Your task to perform on an android device: open app "Spotify: Music and Podcasts" (install if not already installed) Image 0: 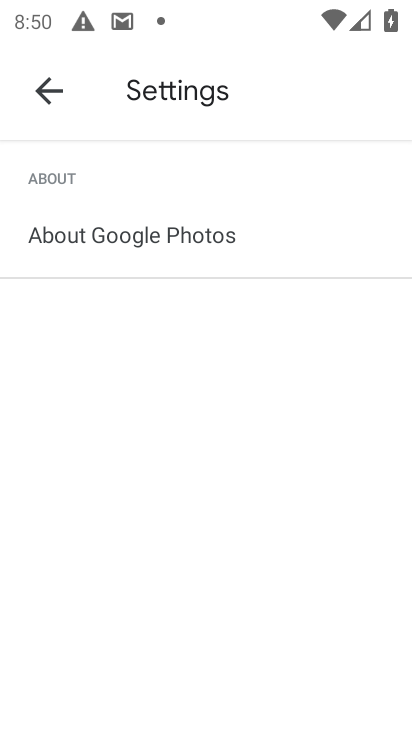
Step 0: press home button
Your task to perform on an android device: open app "Spotify: Music and Podcasts" (install if not already installed) Image 1: 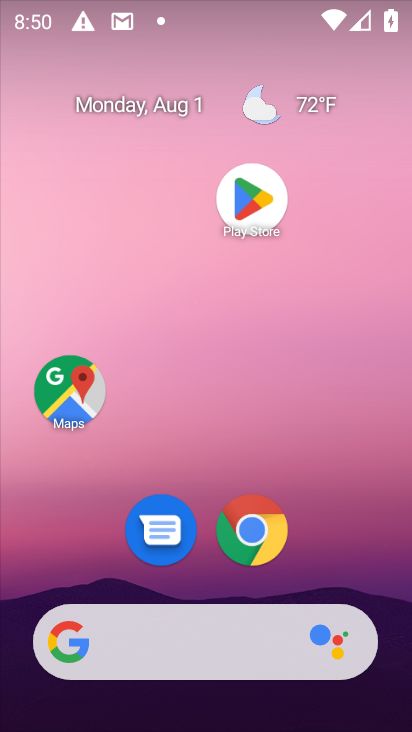
Step 1: click (236, 203)
Your task to perform on an android device: open app "Spotify: Music and Podcasts" (install if not already installed) Image 2: 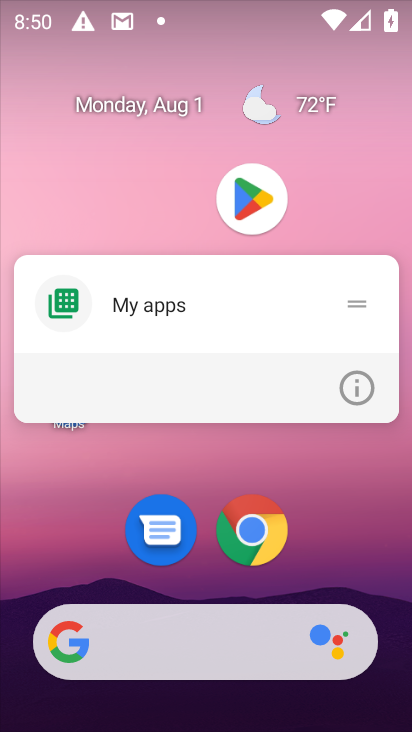
Step 2: click (261, 179)
Your task to perform on an android device: open app "Spotify: Music and Podcasts" (install if not already installed) Image 3: 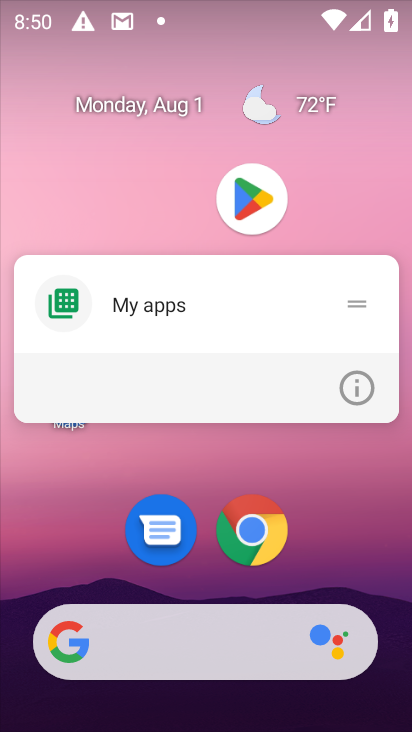
Step 3: click (258, 190)
Your task to perform on an android device: open app "Spotify: Music and Podcasts" (install if not already installed) Image 4: 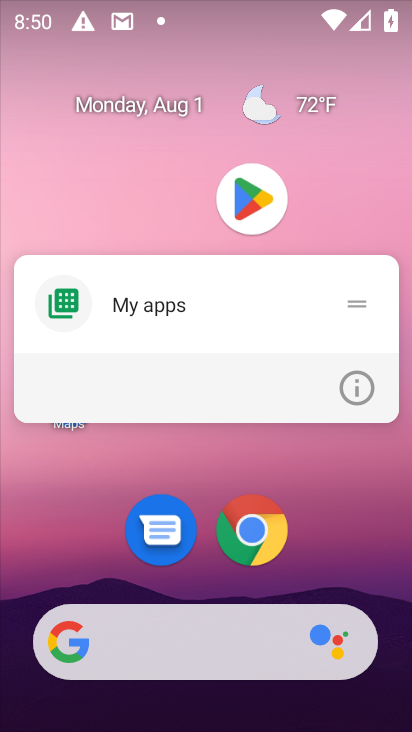
Step 4: click (258, 190)
Your task to perform on an android device: open app "Spotify: Music and Podcasts" (install if not already installed) Image 5: 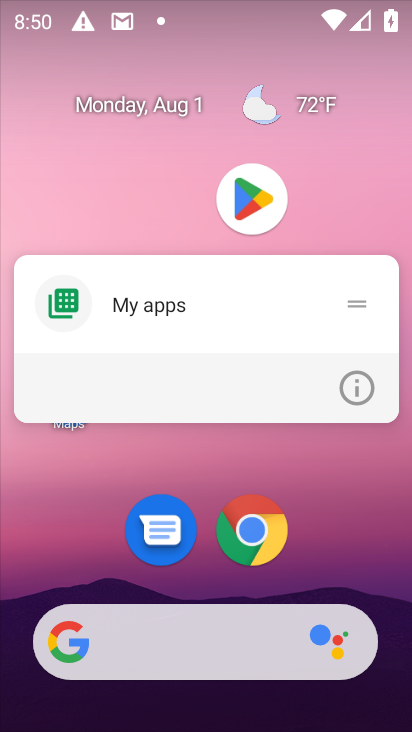
Step 5: click (258, 190)
Your task to perform on an android device: open app "Spotify: Music and Podcasts" (install if not already installed) Image 6: 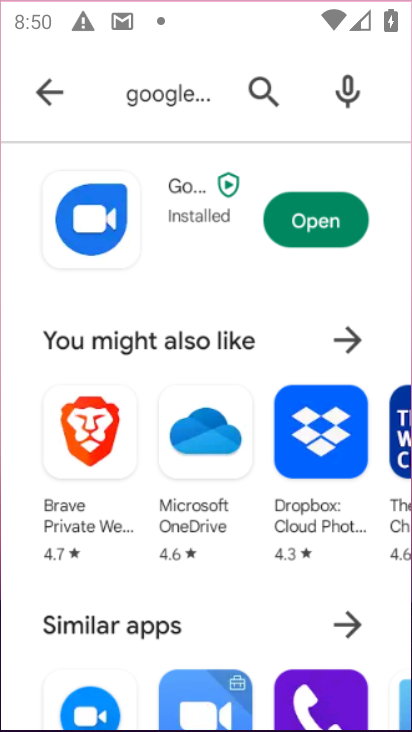
Step 6: click (234, 200)
Your task to perform on an android device: open app "Spotify: Music and Podcasts" (install if not already installed) Image 7: 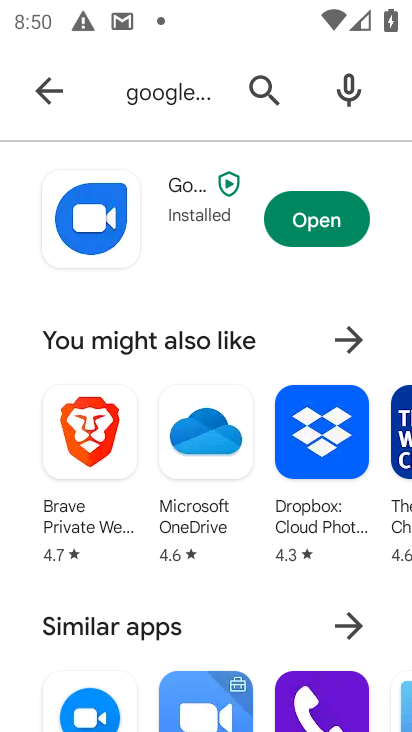
Step 7: click (234, 185)
Your task to perform on an android device: open app "Spotify: Music and Podcasts" (install if not already installed) Image 8: 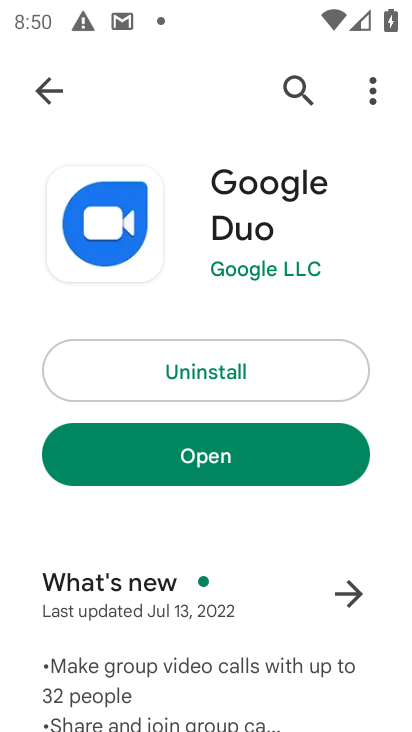
Step 8: click (294, 81)
Your task to perform on an android device: open app "Spotify: Music and Podcasts" (install if not already installed) Image 9: 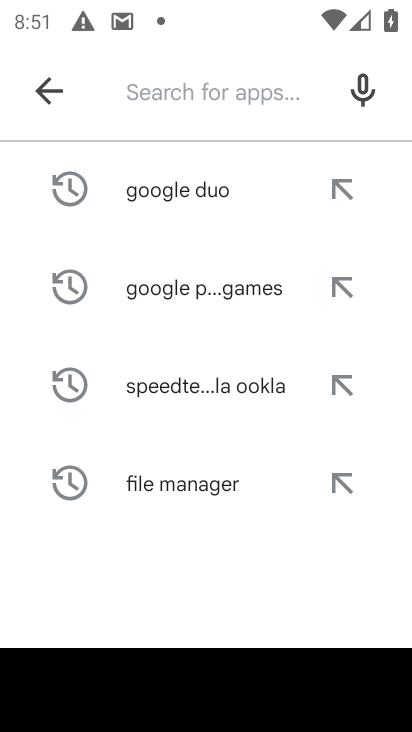
Step 9: type "spotify music and podcasts"
Your task to perform on an android device: open app "Spotify: Music and Podcasts" (install if not already installed) Image 10: 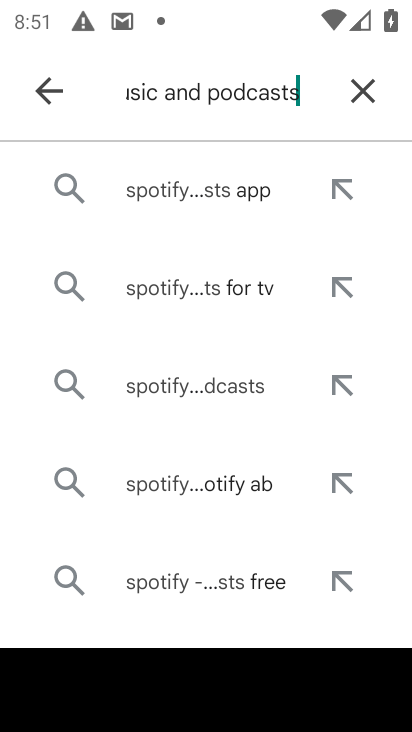
Step 10: type ""
Your task to perform on an android device: open app "Spotify: Music and Podcasts" (install if not already installed) Image 11: 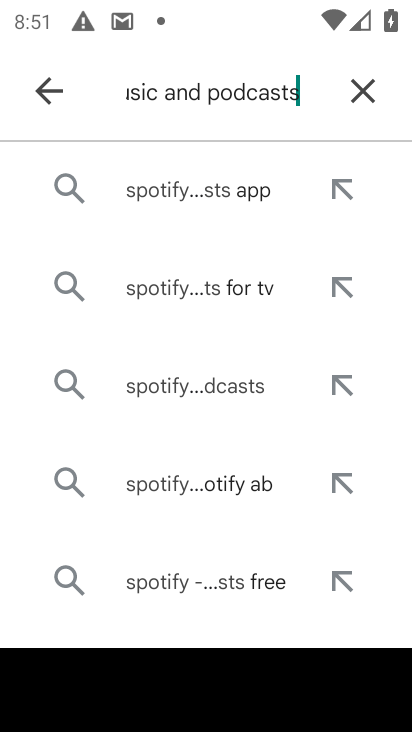
Step 11: type ""
Your task to perform on an android device: open app "Spotify: Music and Podcasts" (install if not already installed) Image 12: 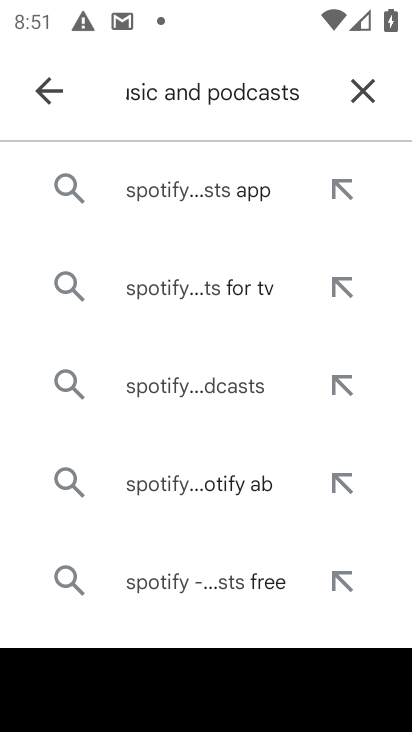
Step 12: press enter
Your task to perform on an android device: open app "Spotify: Music and Podcasts" (install if not already installed) Image 13: 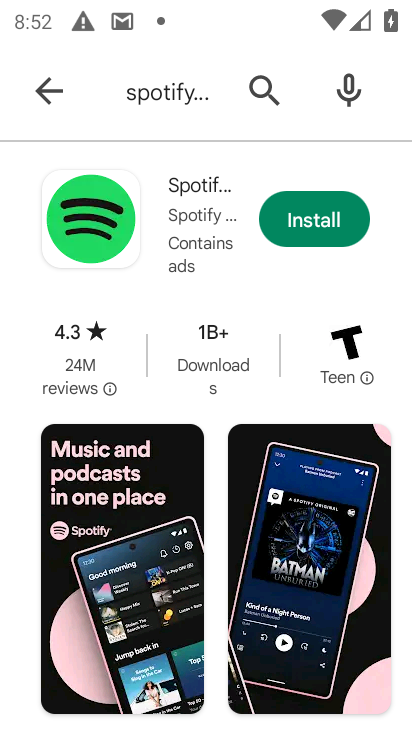
Step 13: click (326, 212)
Your task to perform on an android device: open app "Spotify: Music and Podcasts" (install if not already installed) Image 14: 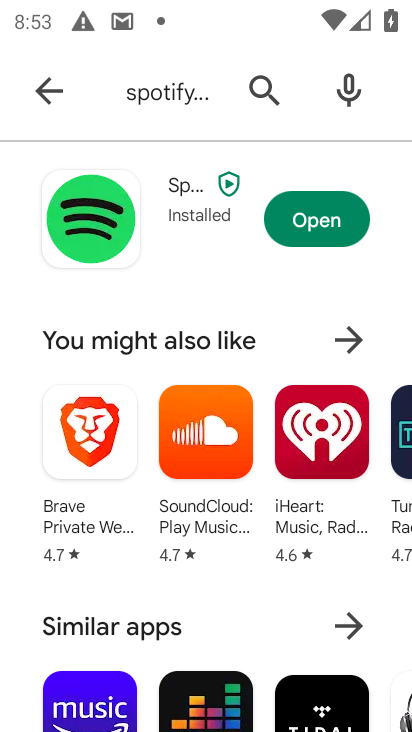
Step 14: click (286, 226)
Your task to perform on an android device: open app "Spotify: Music and Podcasts" (install if not already installed) Image 15: 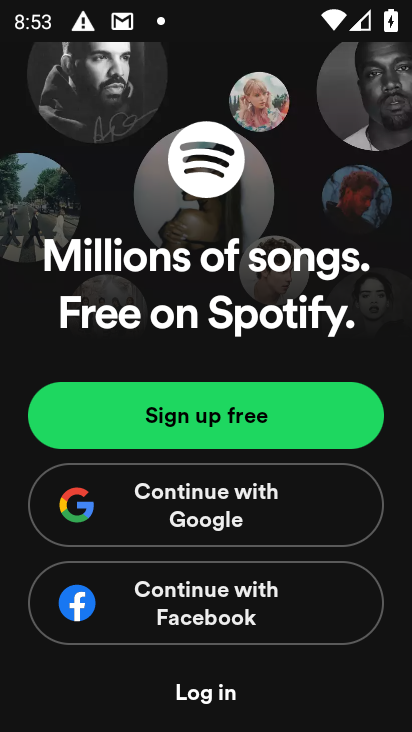
Step 15: task complete